Your task to perform on an android device: check google app version Image 0: 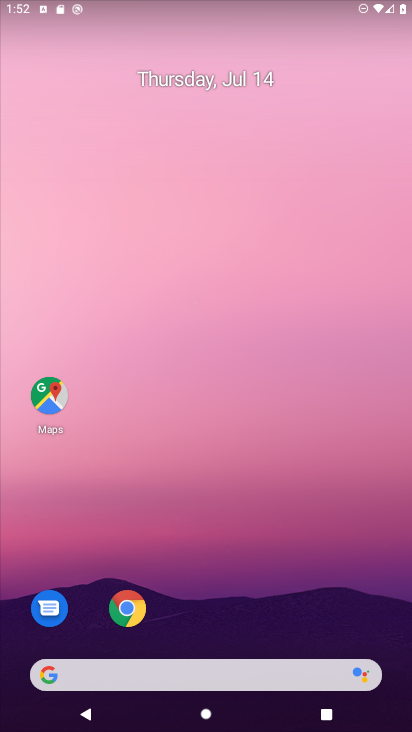
Step 0: click (126, 609)
Your task to perform on an android device: check google app version Image 1: 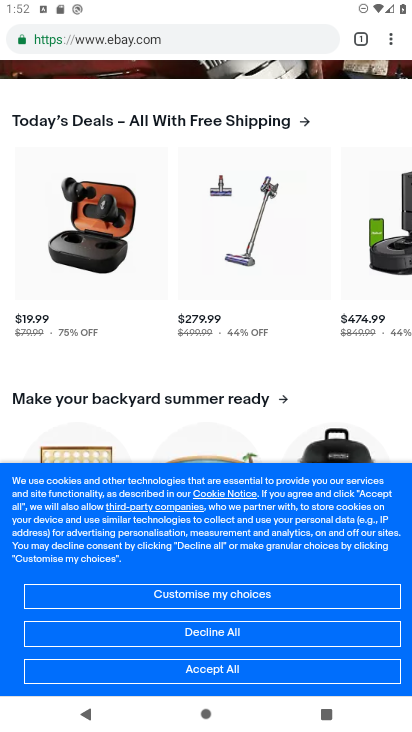
Step 1: click (386, 42)
Your task to perform on an android device: check google app version Image 2: 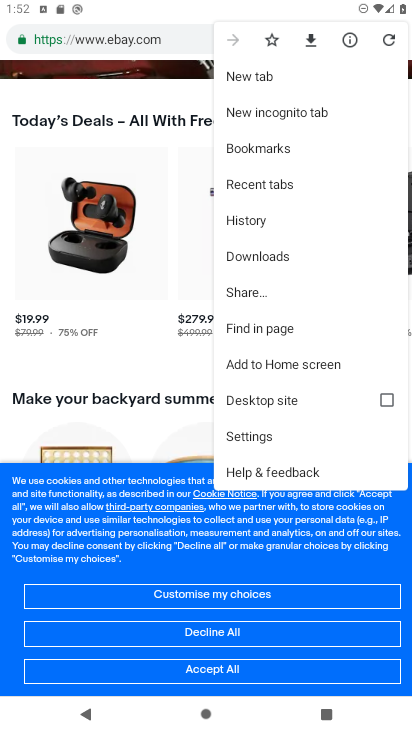
Step 2: click (250, 444)
Your task to perform on an android device: check google app version Image 3: 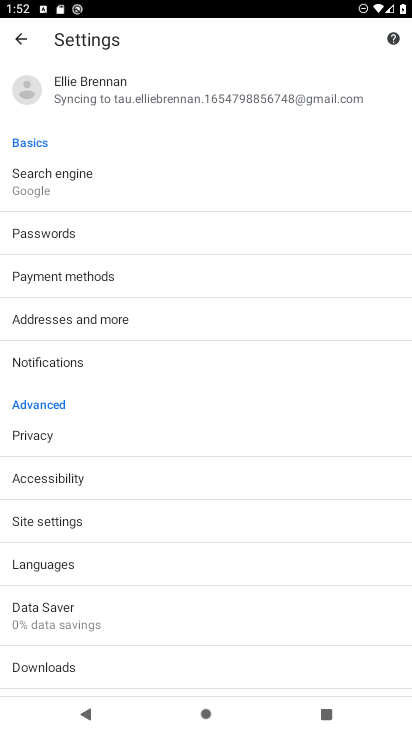
Step 3: drag from (137, 645) to (167, 246)
Your task to perform on an android device: check google app version Image 4: 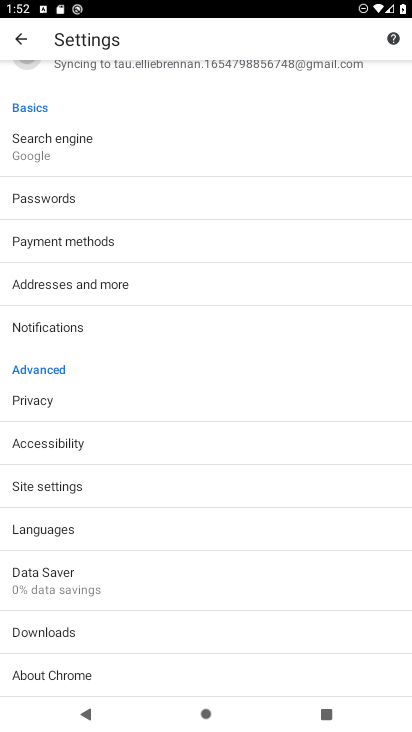
Step 4: click (59, 672)
Your task to perform on an android device: check google app version Image 5: 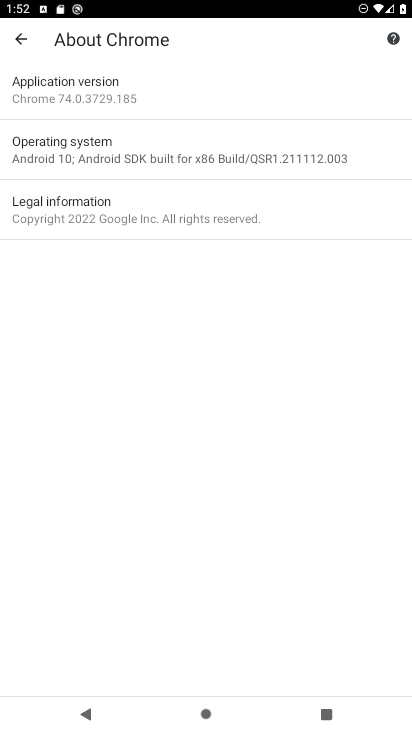
Step 5: click (67, 88)
Your task to perform on an android device: check google app version Image 6: 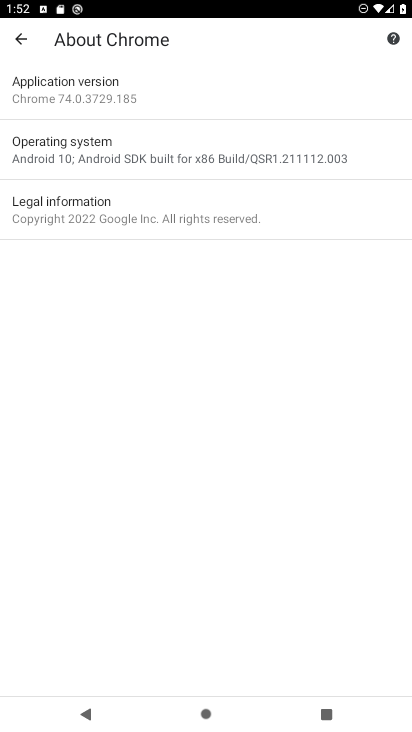
Step 6: task complete